Your task to perform on an android device: choose inbox layout in the gmail app Image 0: 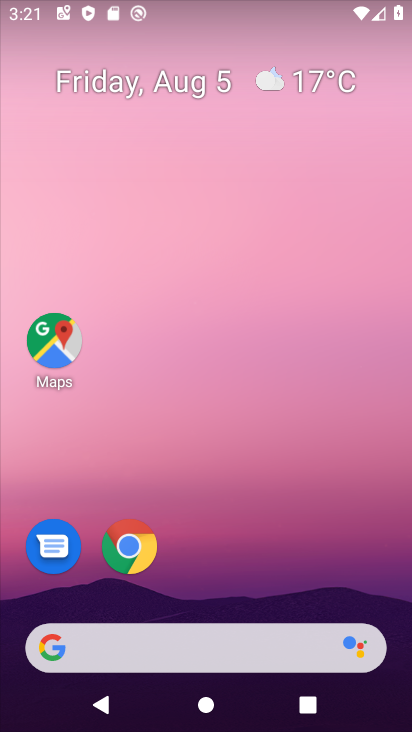
Step 0: press home button
Your task to perform on an android device: choose inbox layout in the gmail app Image 1: 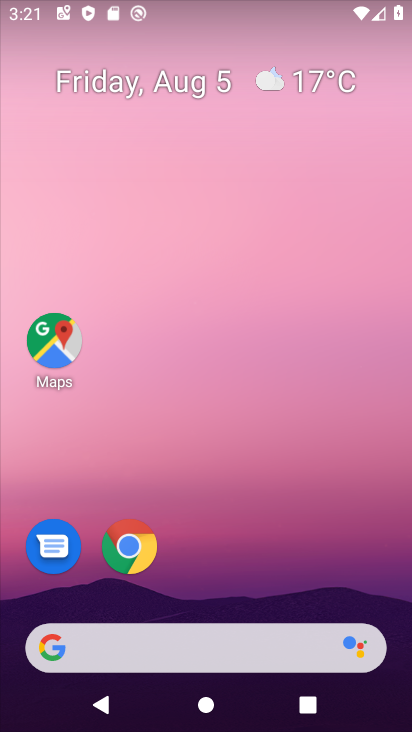
Step 1: drag from (305, 602) to (337, 142)
Your task to perform on an android device: choose inbox layout in the gmail app Image 2: 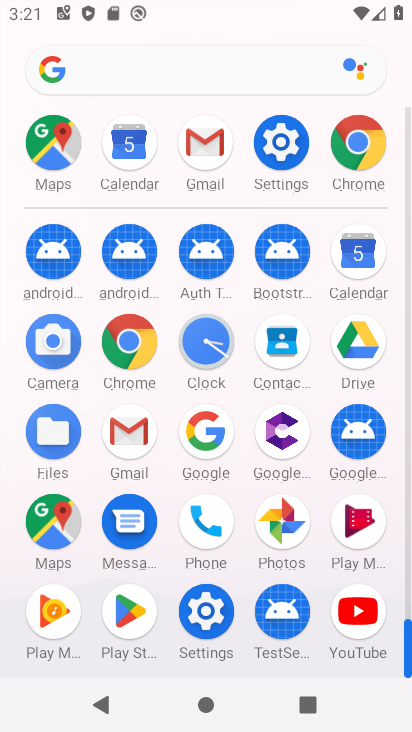
Step 2: click (131, 434)
Your task to perform on an android device: choose inbox layout in the gmail app Image 3: 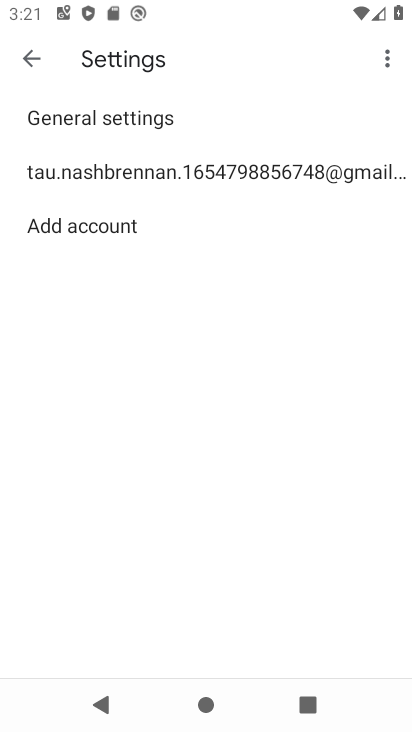
Step 3: click (215, 169)
Your task to perform on an android device: choose inbox layout in the gmail app Image 4: 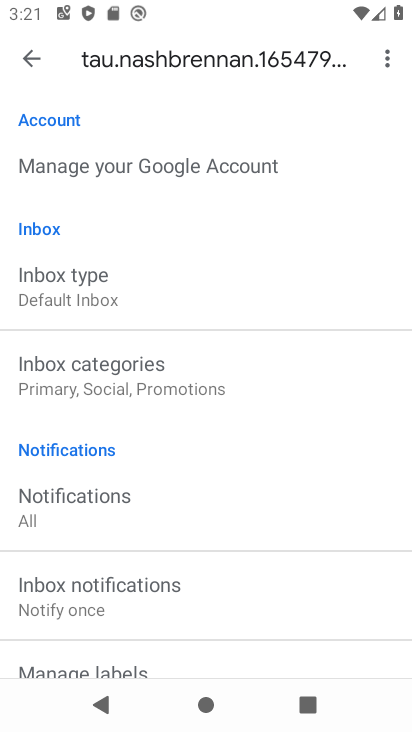
Step 4: drag from (260, 440) to (272, 311)
Your task to perform on an android device: choose inbox layout in the gmail app Image 5: 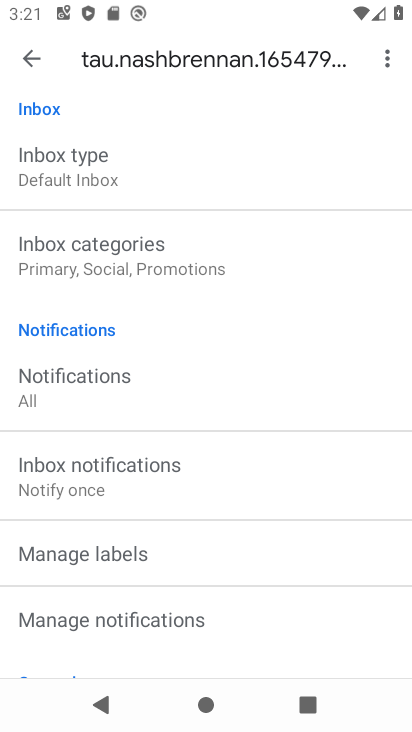
Step 5: drag from (301, 494) to (311, 359)
Your task to perform on an android device: choose inbox layout in the gmail app Image 6: 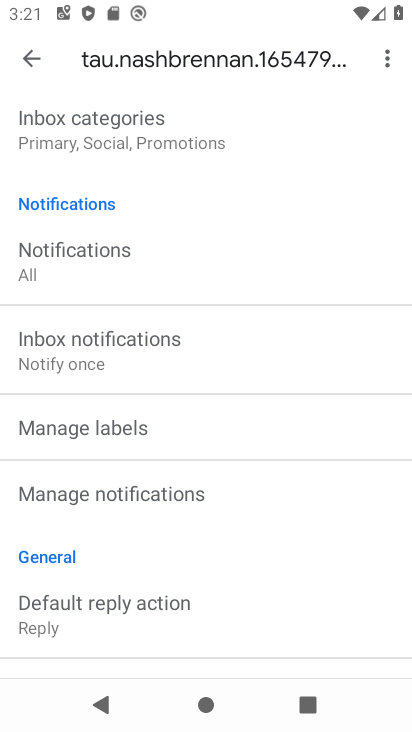
Step 6: drag from (329, 509) to (330, 353)
Your task to perform on an android device: choose inbox layout in the gmail app Image 7: 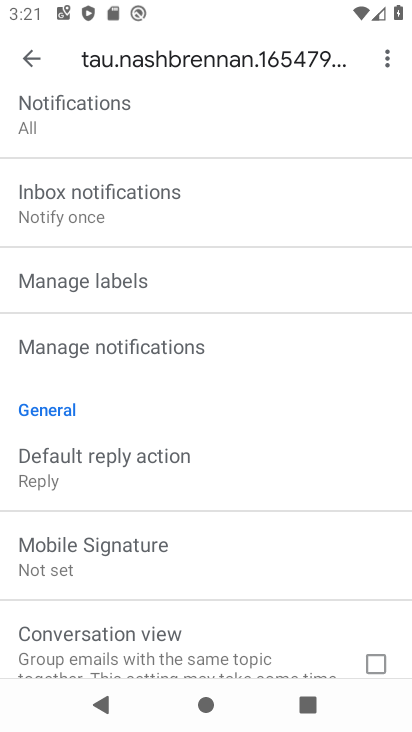
Step 7: drag from (314, 460) to (329, 288)
Your task to perform on an android device: choose inbox layout in the gmail app Image 8: 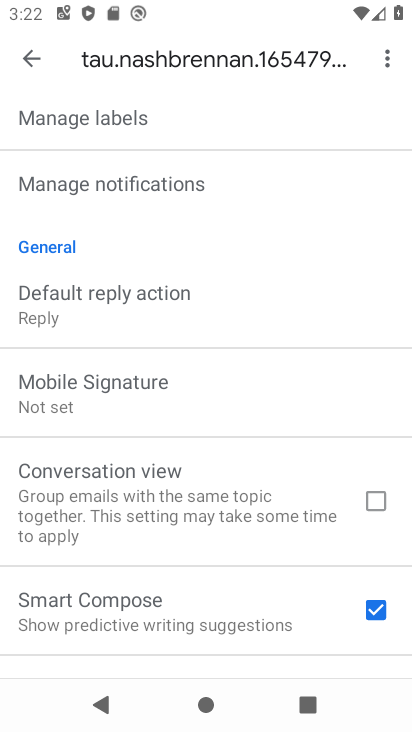
Step 8: drag from (295, 443) to (291, 284)
Your task to perform on an android device: choose inbox layout in the gmail app Image 9: 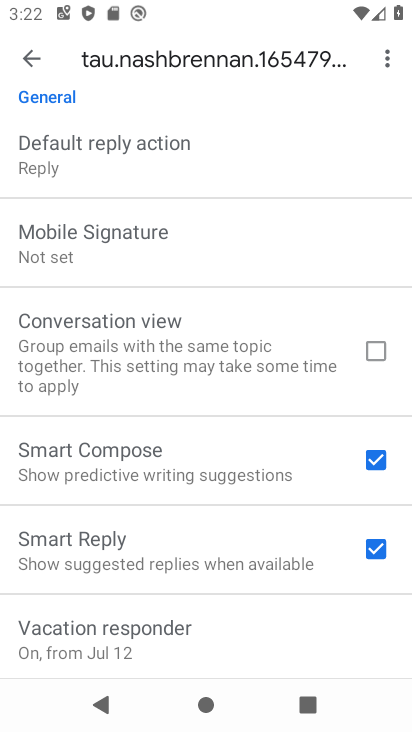
Step 9: drag from (292, 457) to (301, 275)
Your task to perform on an android device: choose inbox layout in the gmail app Image 10: 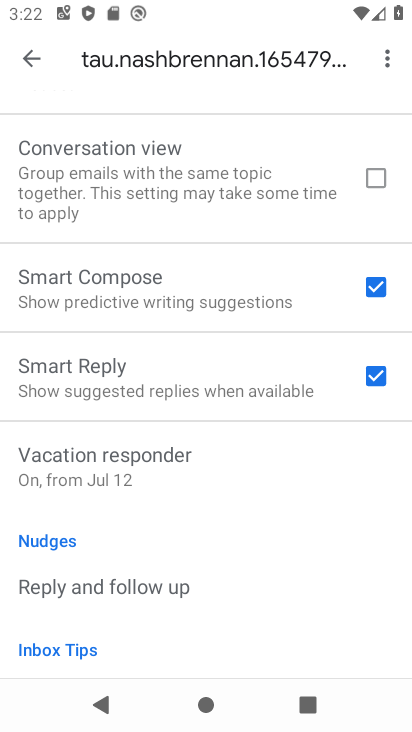
Step 10: drag from (299, 194) to (299, 392)
Your task to perform on an android device: choose inbox layout in the gmail app Image 11: 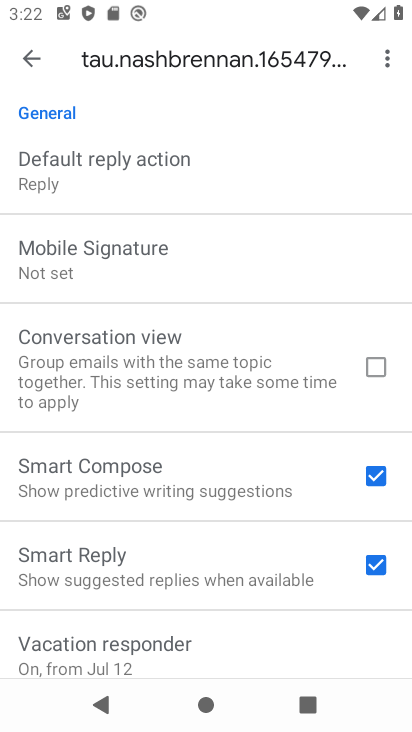
Step 11: drag from (299, 160) to (298, 356)
Your task to perform on an android device: choose inbox layout in the gmail app Image 12: 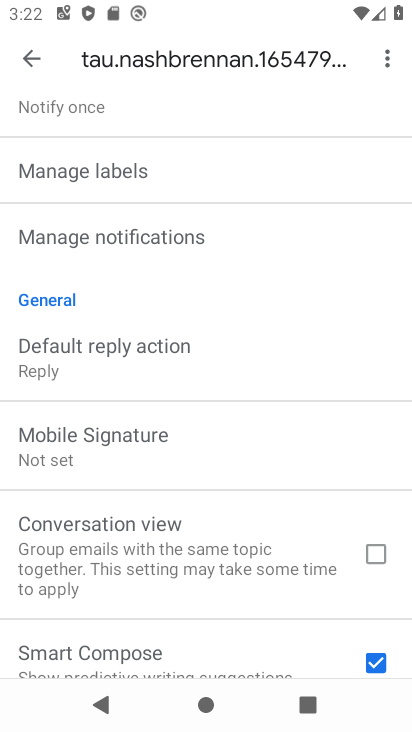
Step 12: drag from (284, 159) to (283, 367)
Your task to perform on an android device: choose inbox layout in the gmail app Image 13: 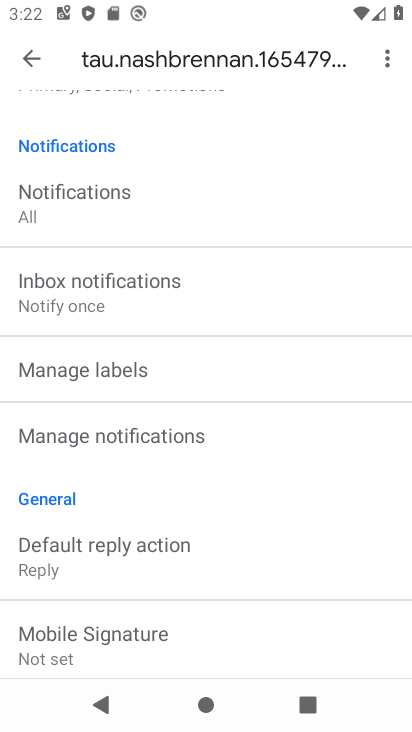
Step 13: drag from (254, 153) to (254, 363)
Your task to perform on an android device: choose inbox layout in the gmail app Image 14: 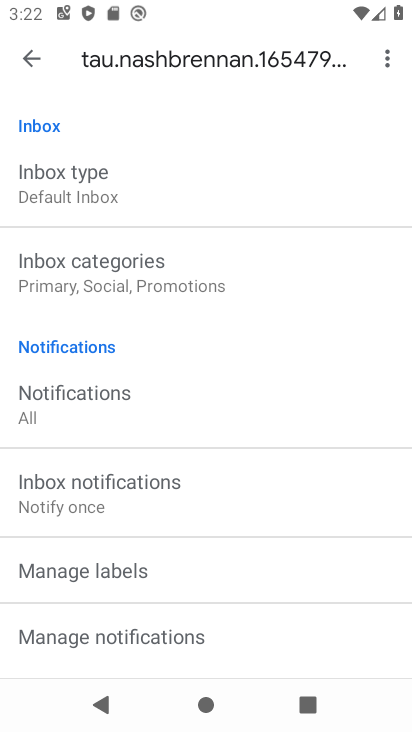
Step 14: drag from (251, 151) to (250, 325)
Your task to perform on an android device: choose inbox layout in the gmail app Image 15: 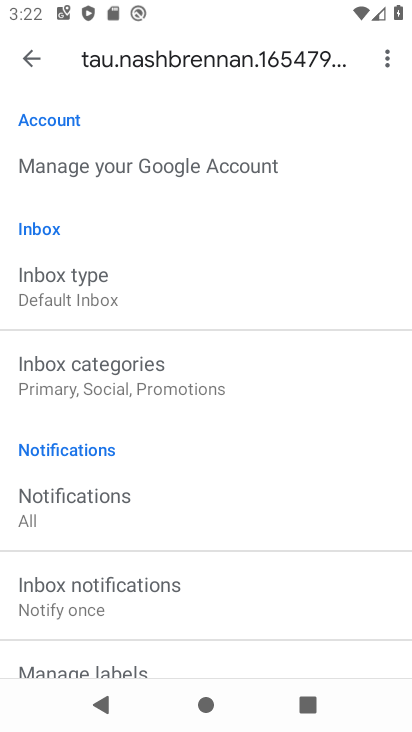
Step 15: click (107, 296)
Your task to perform on an android device: choose inbox layout in the gmail app Image 16: 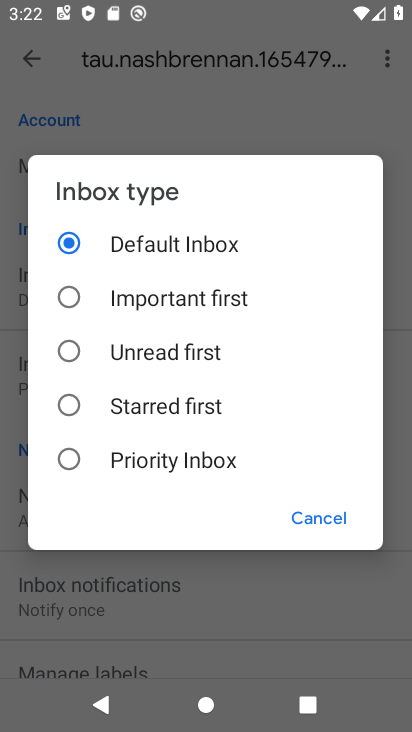
Step 16: click (196, 306)
Your task to perform on an android device: choose inbox layout in the gmail app Image 17: 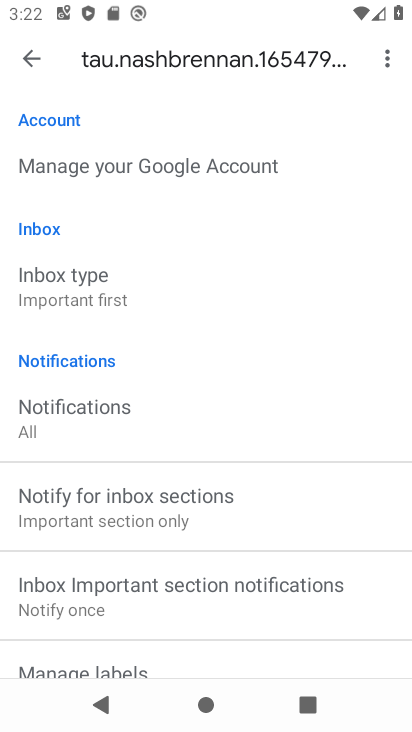
Step 17: task complete